Your task to perform on an android device: turn on bluetooth scan Image 0: 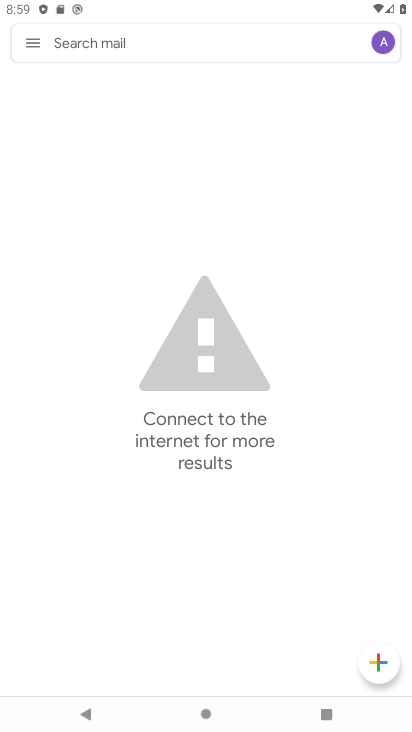
Step 0: press back button
Your task to perform on an android device: turn on bluetooth scan Image 1: 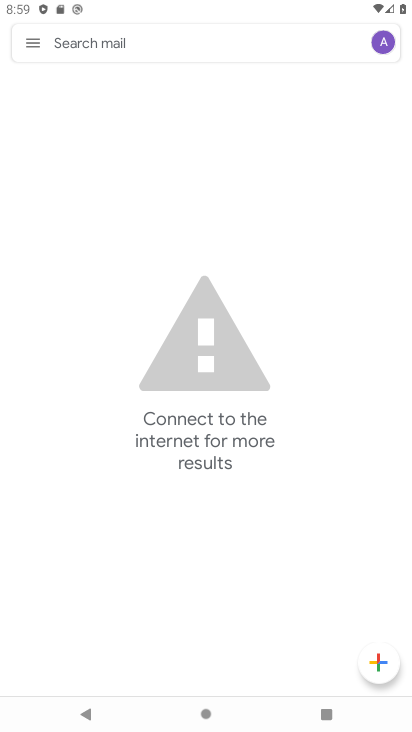
Step 1: press back button
Your task to perform on an android device: turn on bluetooth scan Image 2: 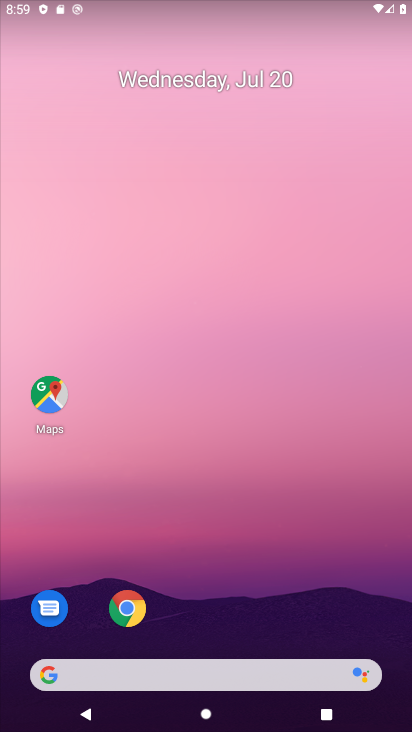
Step 2: drag from (229, 541) to (205, 73)
Your task to perform on an android device: turn on bluetooth scan Image 3: 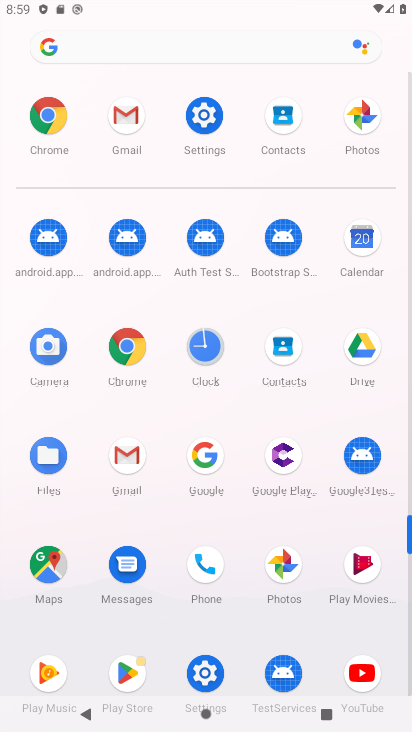
Step 3: click (198, 107)
Your task to perform on an android device: turn on bluetooth scan Image 4: 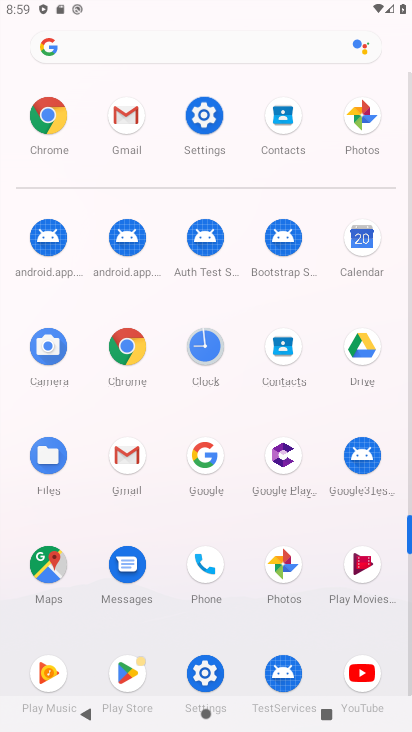
Step 4: click (209, 107)
Your task to perform on an android device: turn on bluetooth scan Image 5: 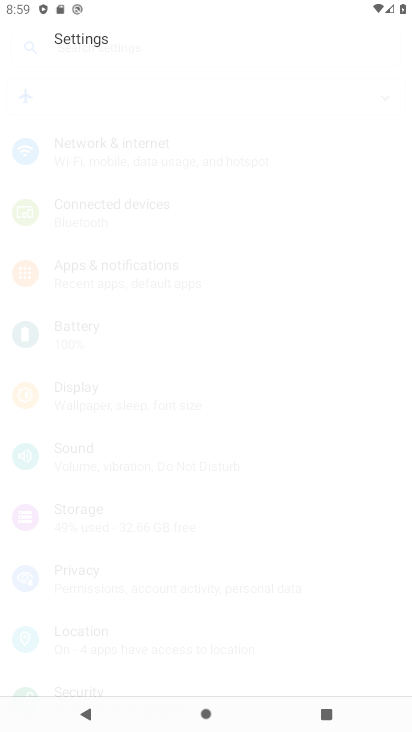
Step 5: click (212, 109)
Your task to perform on an android device: turn on bluetooth scan Image 6: 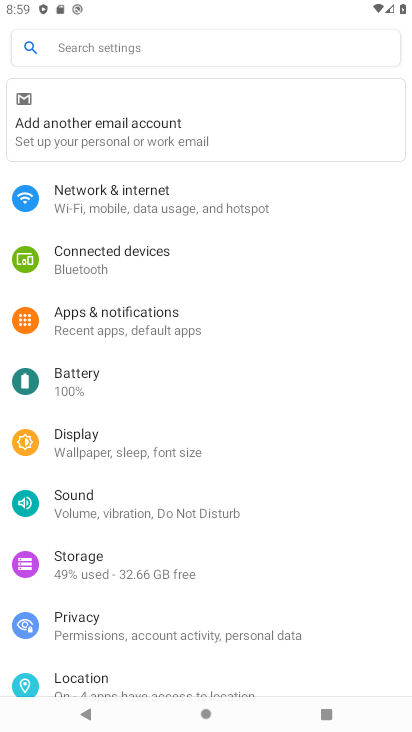
Step 6: drag from (110, 609) to (175, 214)
Your task to perform on an android device: turn on bluetooth scan Image 7: 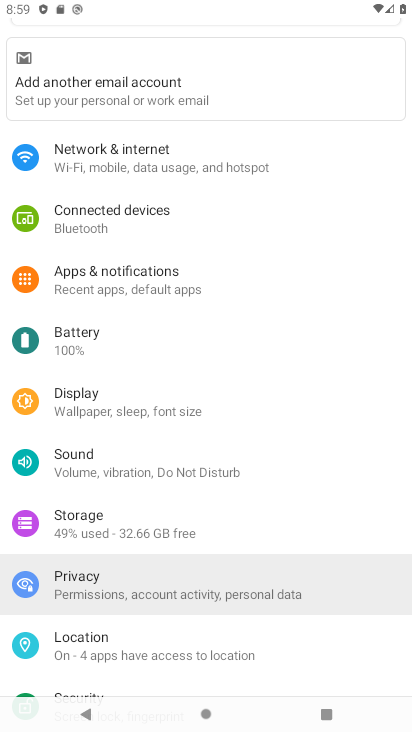
Step 7: drag from (140, 500) to (133, 325)
Your task to perform on an android device: turn on bluetooth scan Image 8: 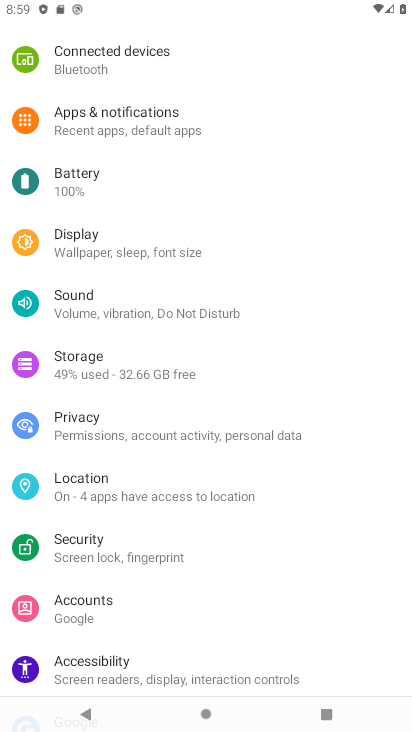
Step 8: click (72, 494)
Your task to perform on an android device: turn on bluetooth scan Image 9: 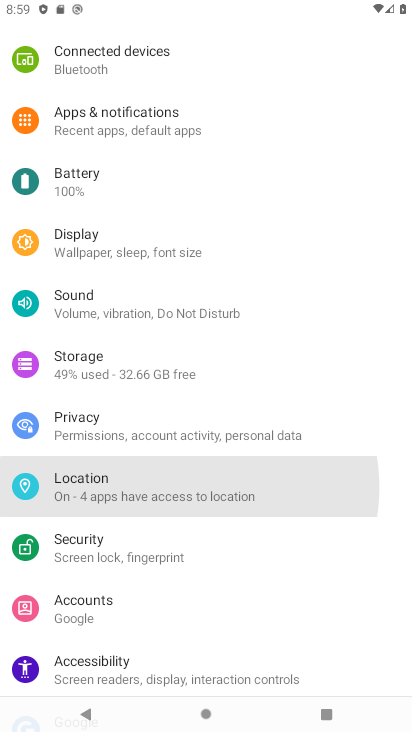
Step 9: click (73, 489)
Your task to perform on an android device: turn on bluetooth scan Image 10: 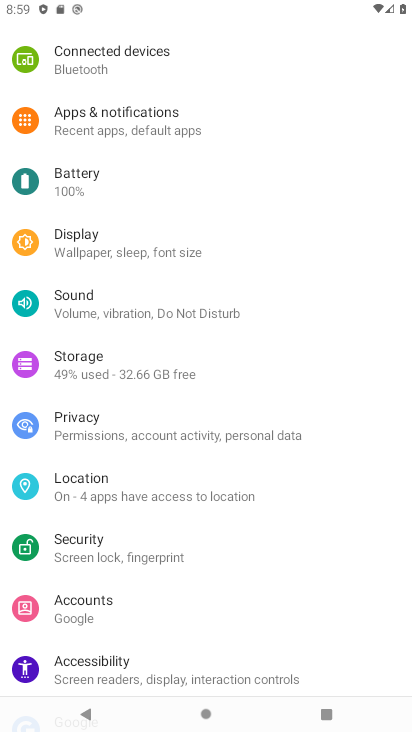
Step 10: click (78, 486)
Your task to perform on an android device: turn on bluetooth scan Image 11: 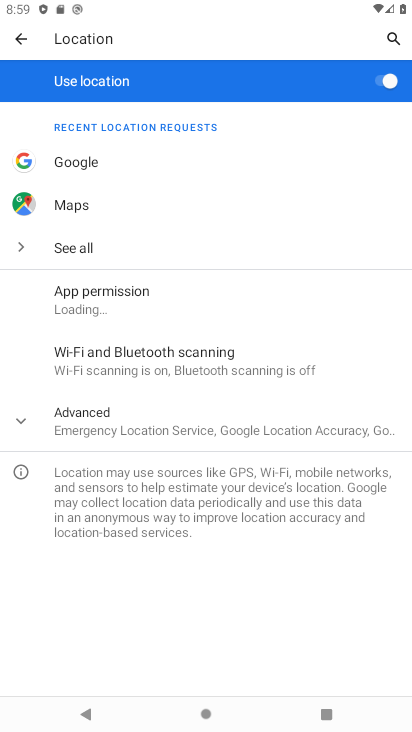
Step 11: click (83, 307)
Your task to perform on an android device: turn on bluetooth scan Image 12: 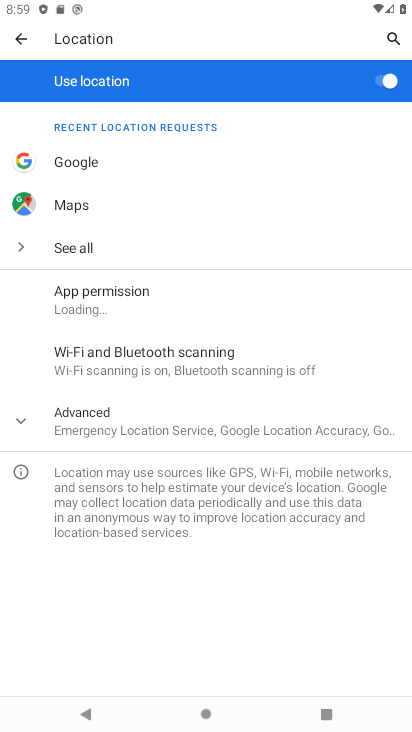
Step 12: click (98, 351)
Your task to perform on an android device: turn on bluetooth scan Image 13: 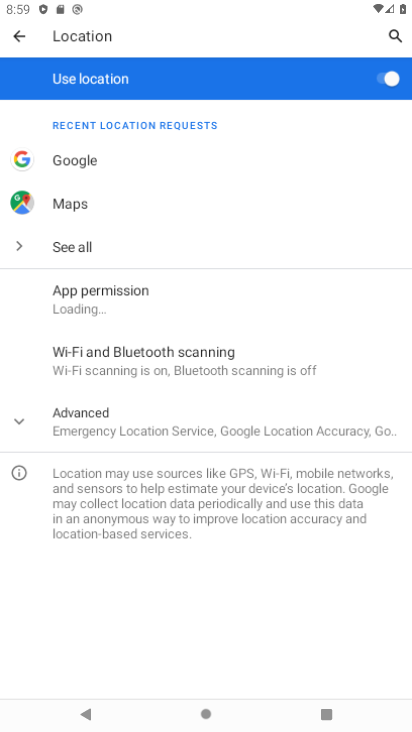
Step 13: click (102, 351)
Your task to perform on an android device: turn on bluetooth scan Image 14: 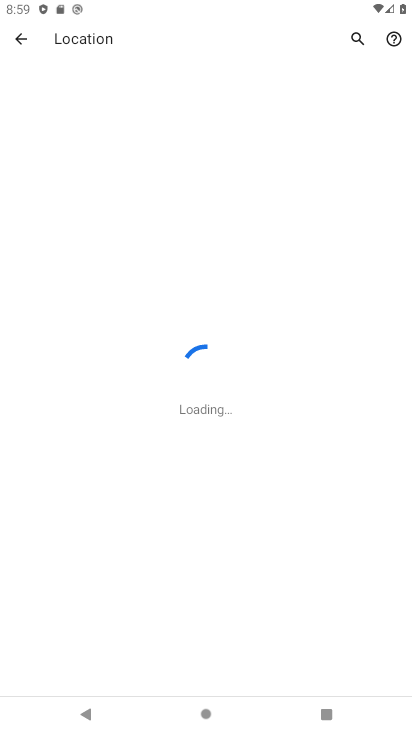
Step 14: click (22, 40)
Your task to perform on an android device: turn on bluetooth scan Image 15: 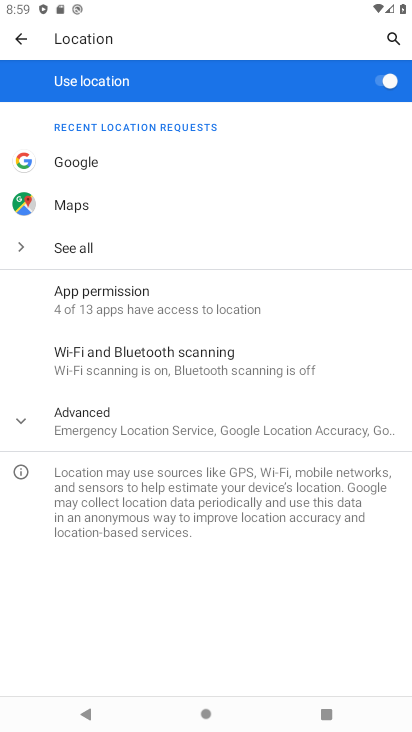
Step 15: click (178, 355)
Your task to perform on an android device: turn on bluetooth scan Image 16: 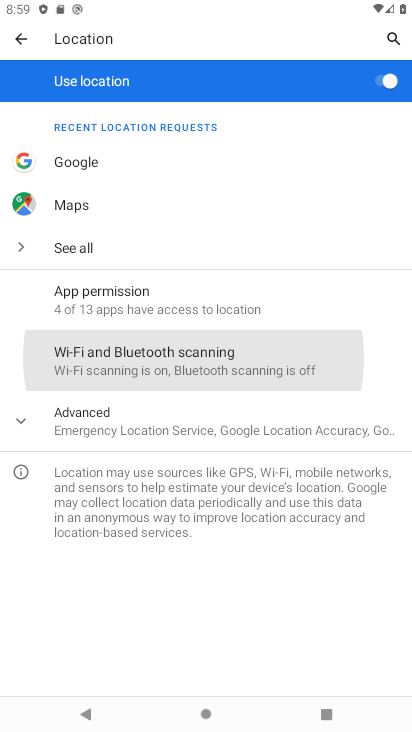
Step 16: click (184, 353)
Your task to perform on an android device: turn on bluetooth scan Image 17: 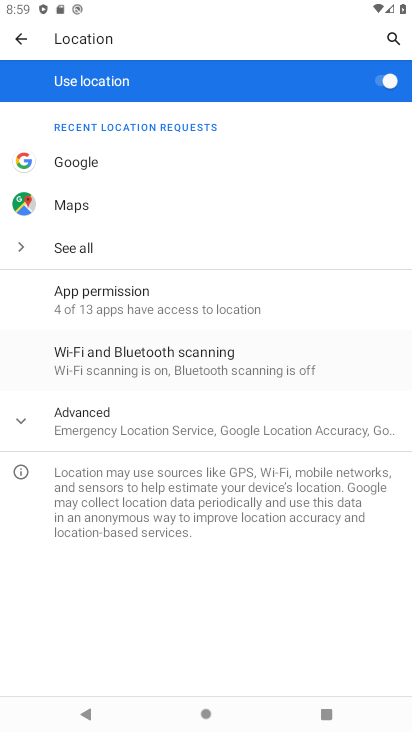
Step 17: click (187, 353)
Your task to perform on an android device: turn on bluetooth scan Image 18: 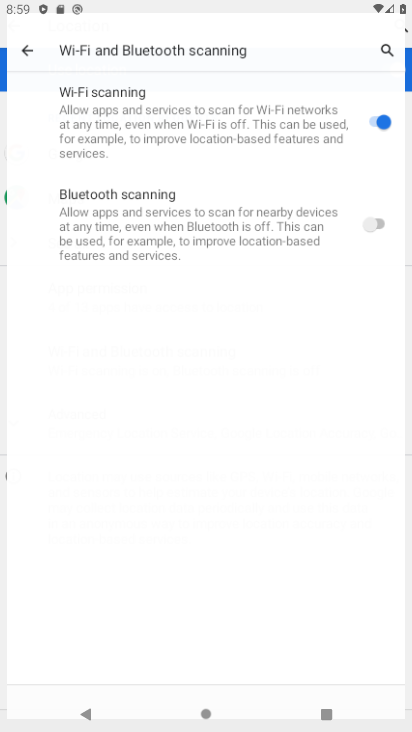
Step 18: click (189, 353)
Your task to perform on an android device: turn on bluetooth scan Image 19: 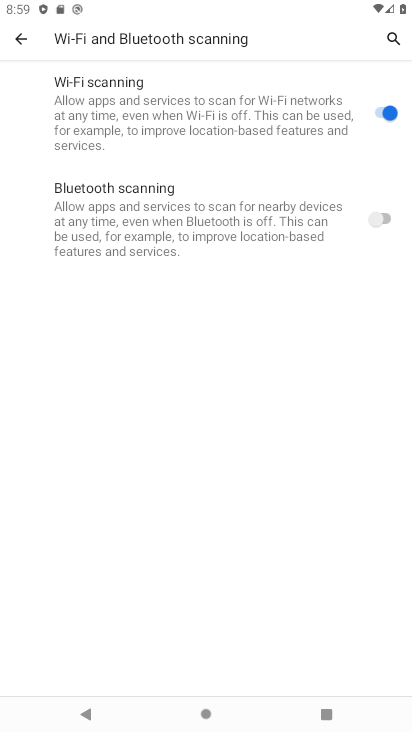
Step 19: click (377, 216)
Your task to perform on an android device: turn on bluetooth scan Image 20: 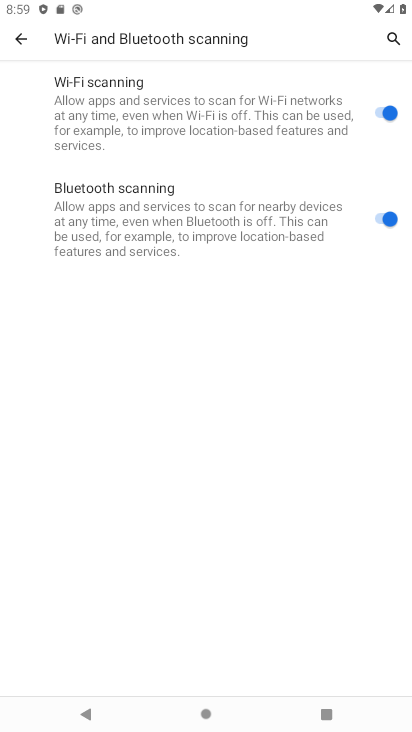
Step 20: task complete